Your task to perform on an android device: open a bookmark in the chrome app Image 0: 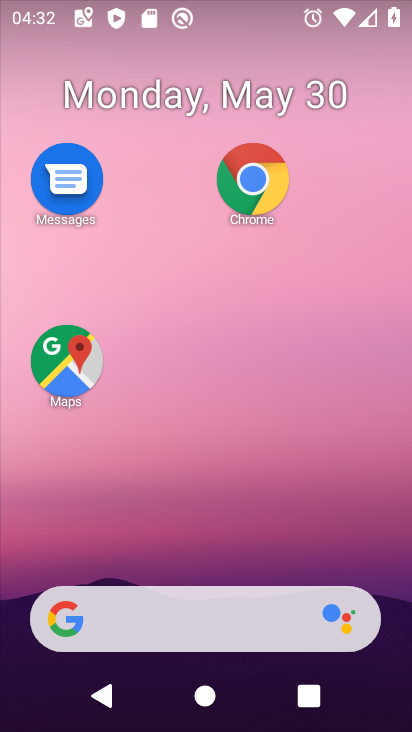
Step 0: click (248, 162)
Your task to perform on an android device: open a bookmark in the chrome app Image 1: 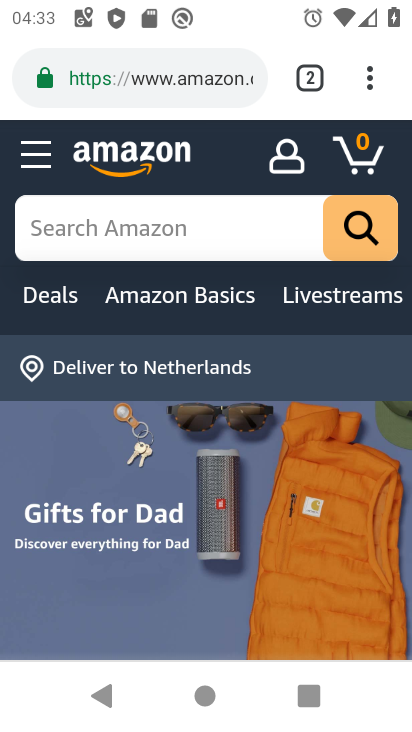
Step 1: click (365, 74)
Your task to perform on an android device: open a bookmark in the chrome app Image 2: 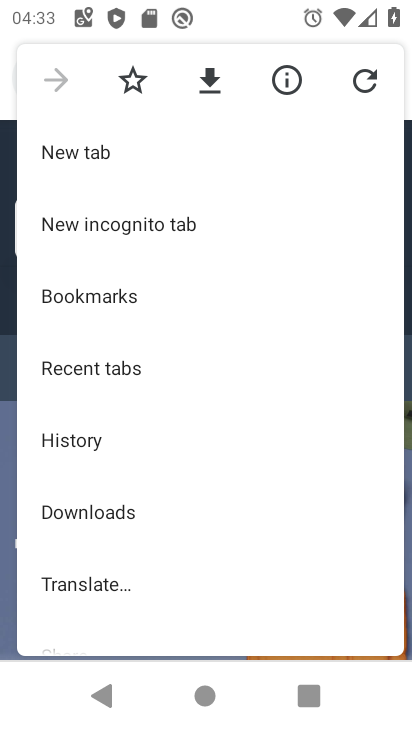
Step 2: click (103, 295)
Your task to perform on an android device: open a bookmark in the chrome app Image 3: 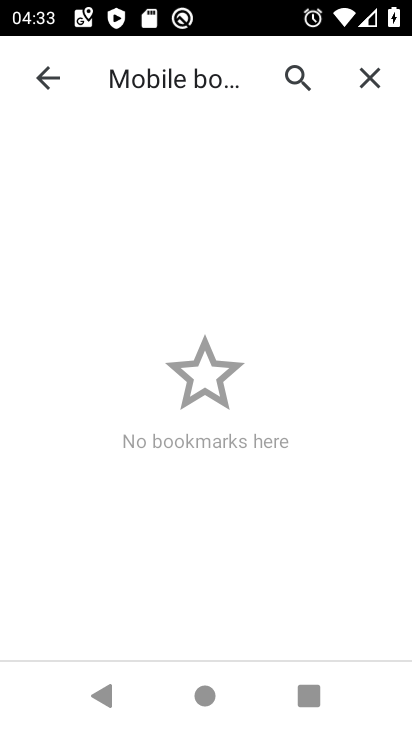
Step 3: task complete